Your task to perform on an android device: Go to notification settings Image 0: 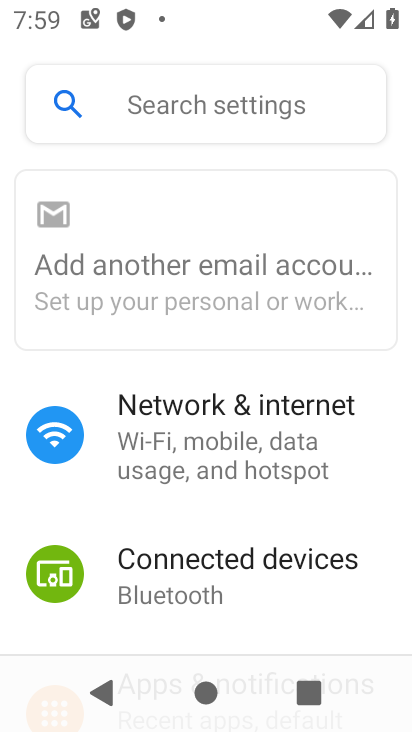
Step 0: press home button
Your task to perform on an android device: Go to notification settings Image 1: 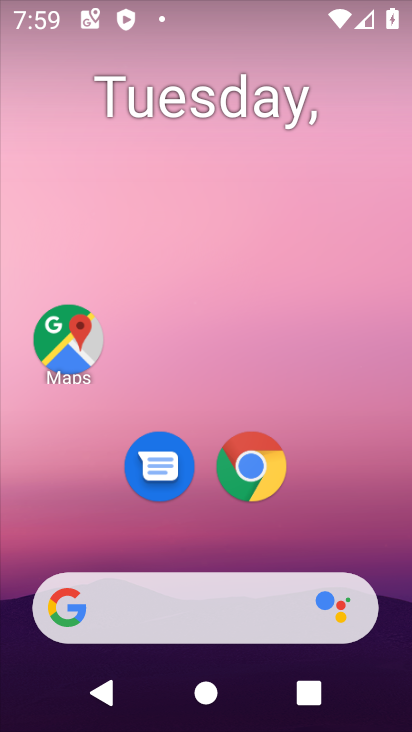
Step 1: drag from (213, 540) to (235, 38)
Your task to perform on an android device: Go to notification settings Image 2: 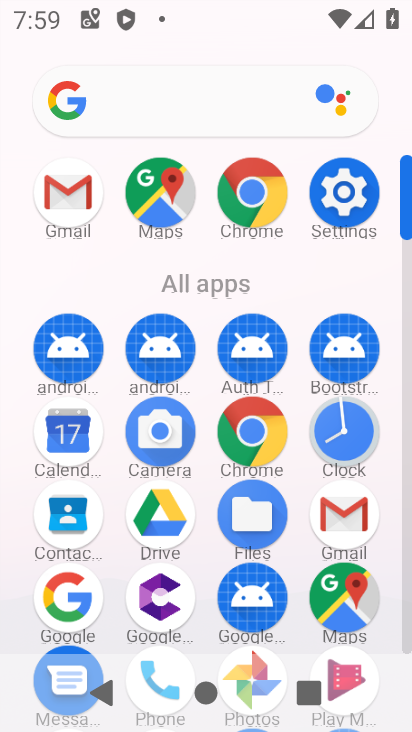
Step 2: click (343, 186)
Your task to perform on an android device: Go to notification settings Image 3: 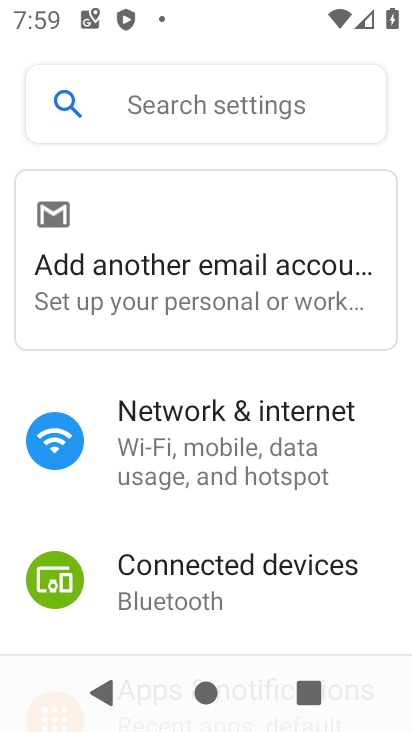
Step 3: drag from (260, 598) to (284, 234)
Your task to perform on an android device: Go to notification settings Image 4: 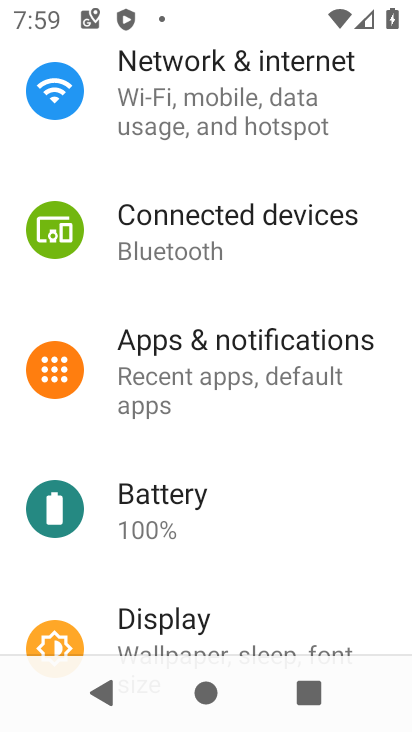
Step 4: click (232, 354)
Your task to perform on an android device: Go to notification settings Image 5: 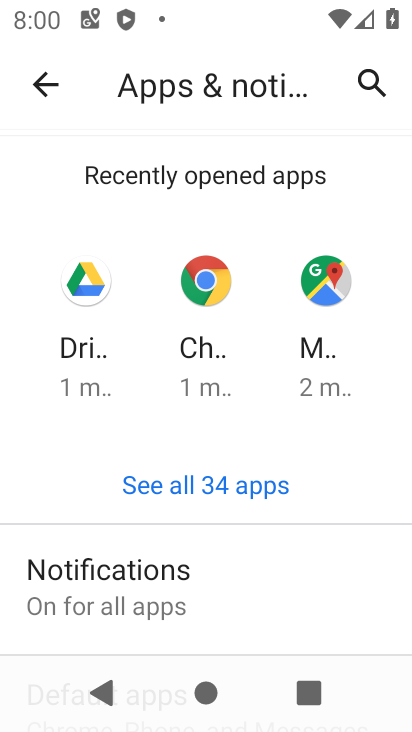
Step 5: click (197, 590)
Your task to perform on an android device: Go to notification settings Image 6: 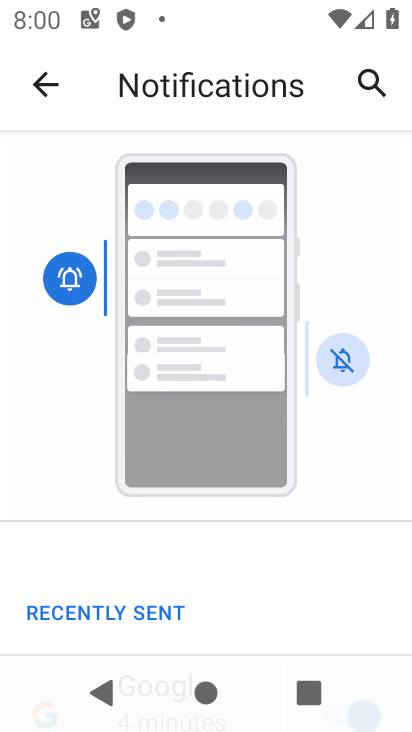
Step 6: drag from (230, 624) to (246, 308)
Your task to perform on an android device: Go to notification settings Image 7: 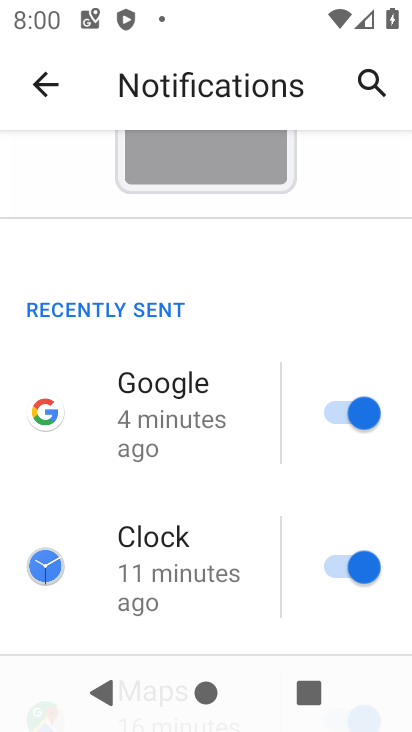
Step 7: drag from (201, 594) to (244, 183)
Your task to perform on an android device: Go to notification settings Image 8: 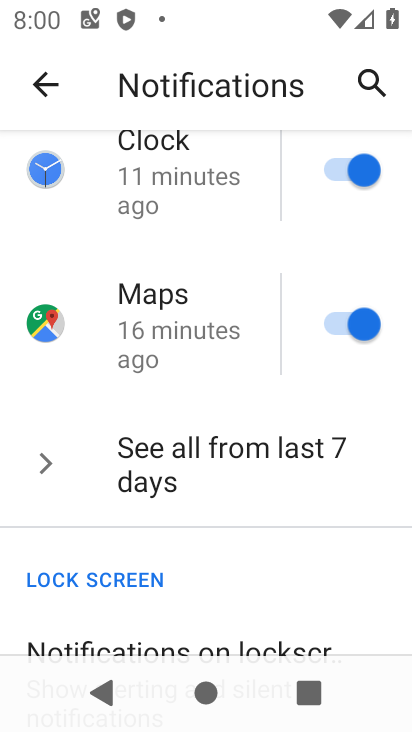
Step 8: drag from (212, 590) to (233, 262)
Your task to perform on an android device: Go to notification settings Image 9: 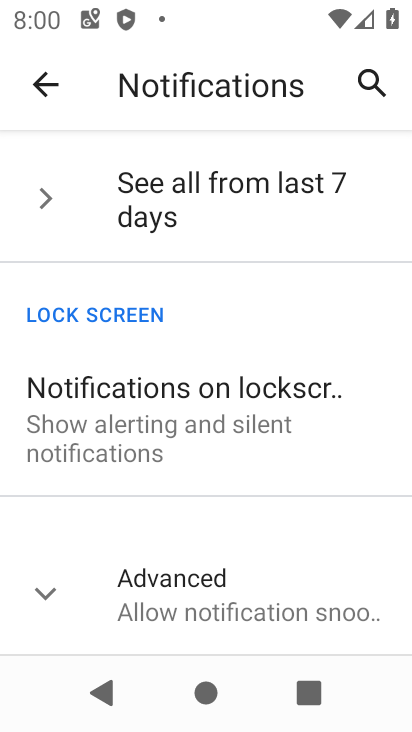
Step 9: click (51, 586)
Your task to perform on an android device: Go to notification settings Image 10: 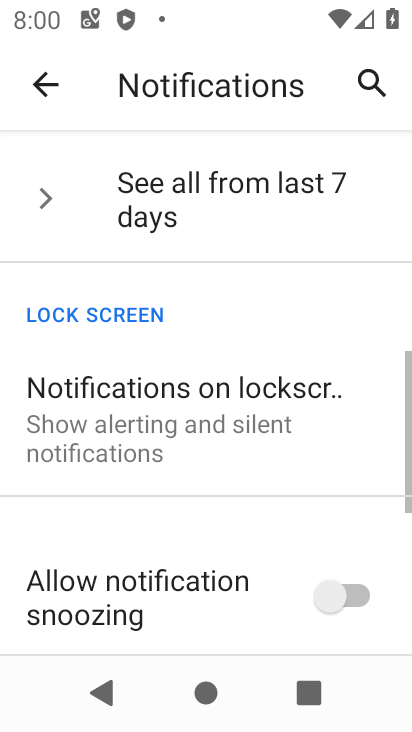
Step 10: task complete